Your task to perform on an android device: What's on my calendar today? Image 0: 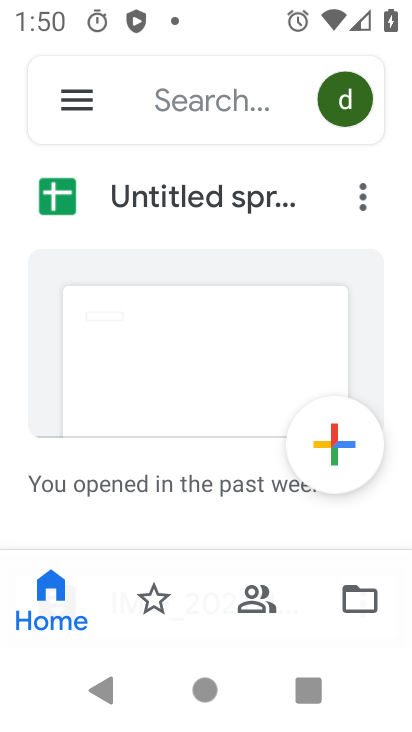
Step 0: press home button
Your task to perform on an android device: What's on my calendar today? Image 1: 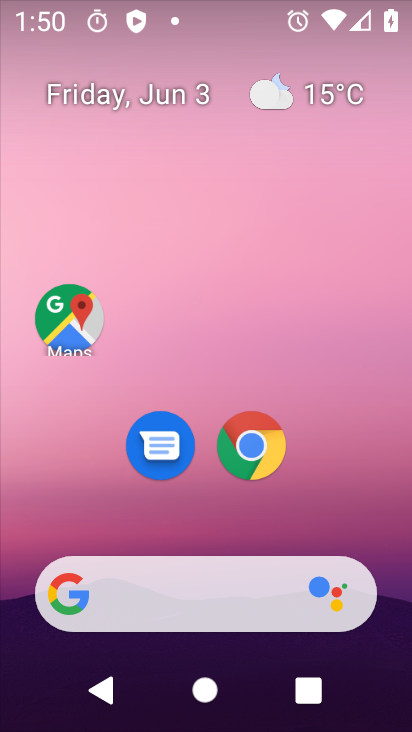
Step 1: click (149, 105)
Your task to perform on an android device: What's on my calendar today? Image 2: 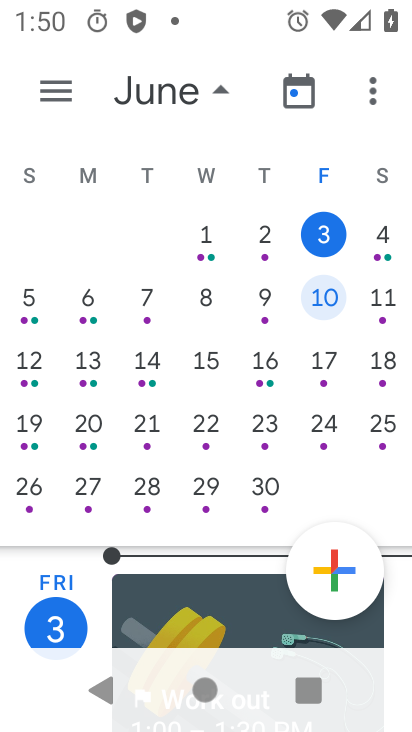
Step 2: task complete